Your task to perform on an android device: Open network settings Image 0: 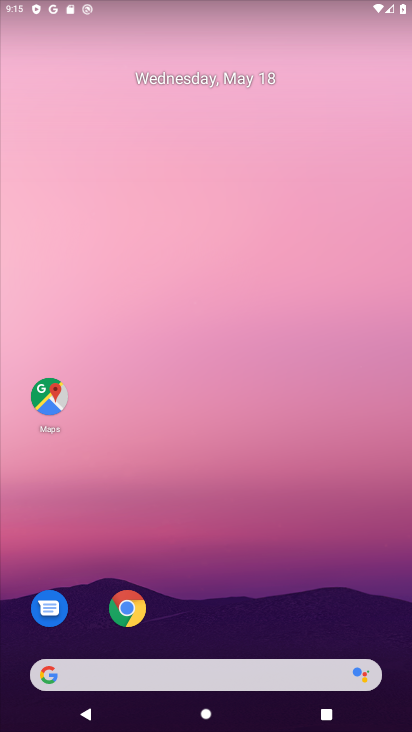
Step 0: drag from (212, 646) to (215, 102)
Your task to perform on an android device: Open network settings Image 1: 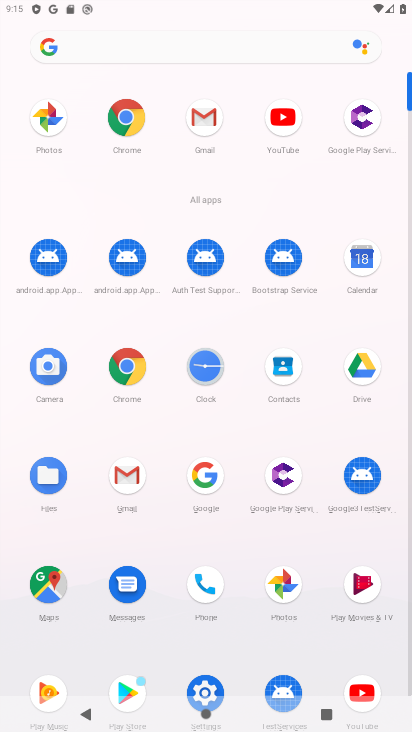
Step 1: click (194, 677)
Your task to perform on an android device: Open network settings Image 2: 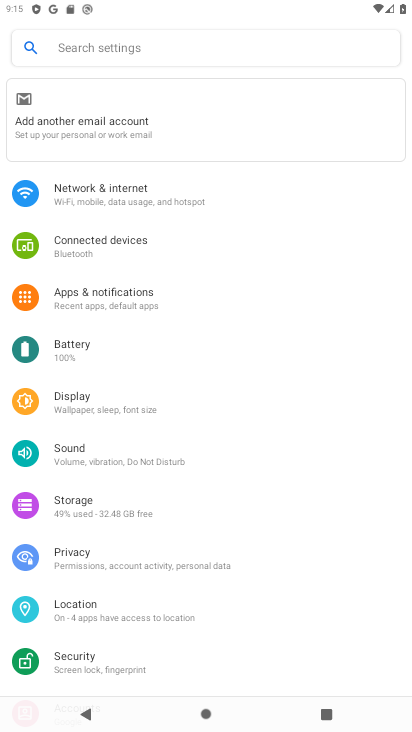
Step 2: click (116, 180)
Your task to perform on an android device: Open network settings Image 3: 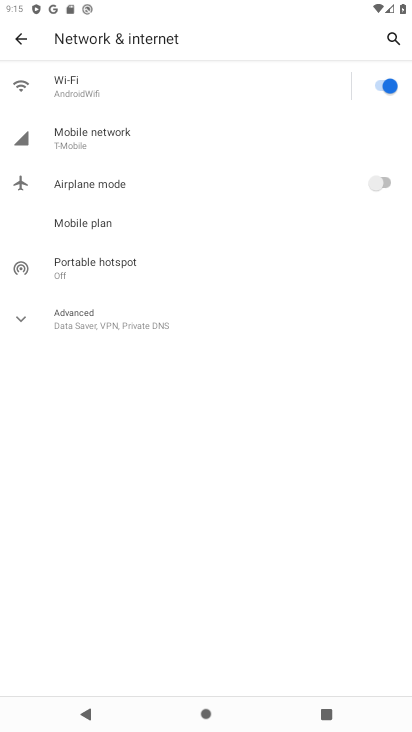
Step 3: task complete